Your task to perform on an android device: add a contact Image 0: 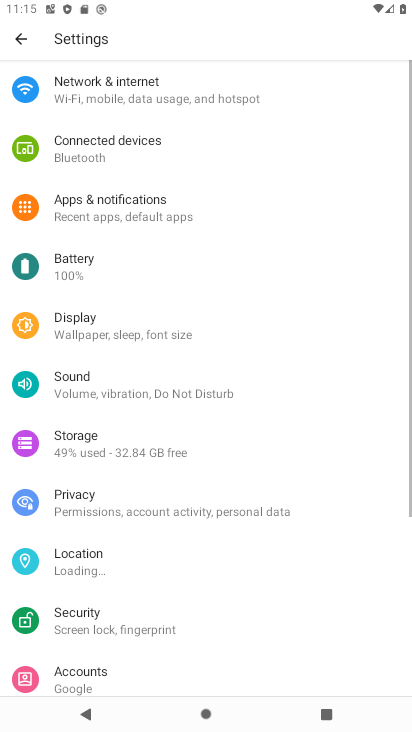
Step 0: press home button
Your task to perform on an android device: add a contact Image 1: 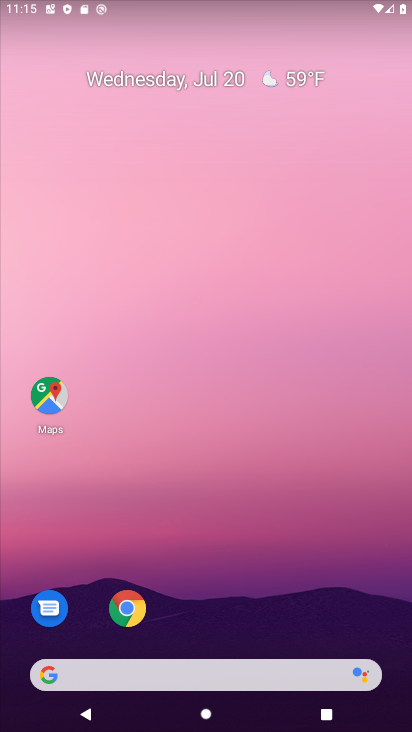
Step 1: drag from (311, 605) to (352, 149)
Your task to perform on an android device: add a contact Image 2: 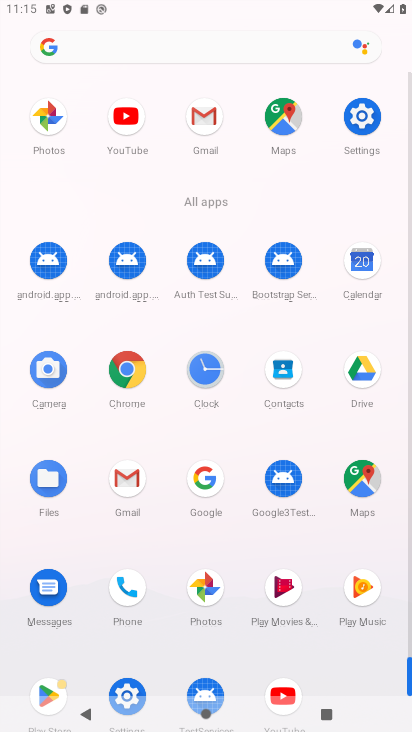
Step 2: click (285, 376)
Your task to perform on an android device: add a contact Image 3: 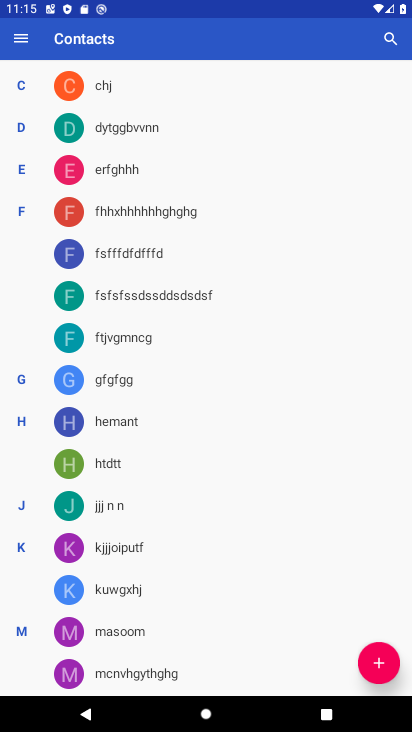
Step 3: click (374, 647)
Your task to perform on an android device: add a contact Image 4: 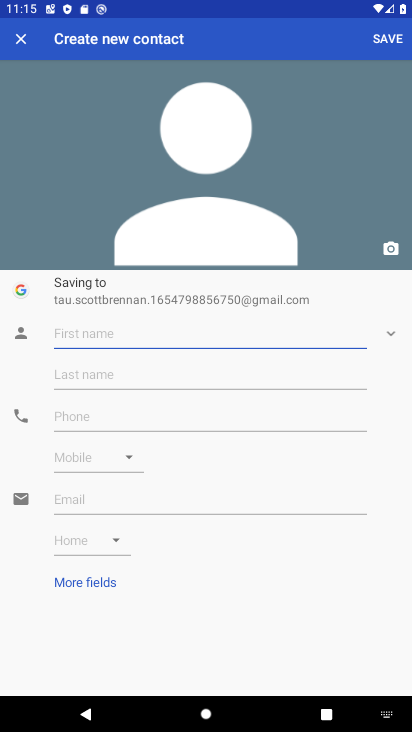
Step 4: type "lolol"
Your task to perform on an android device: add a contact Image 5: 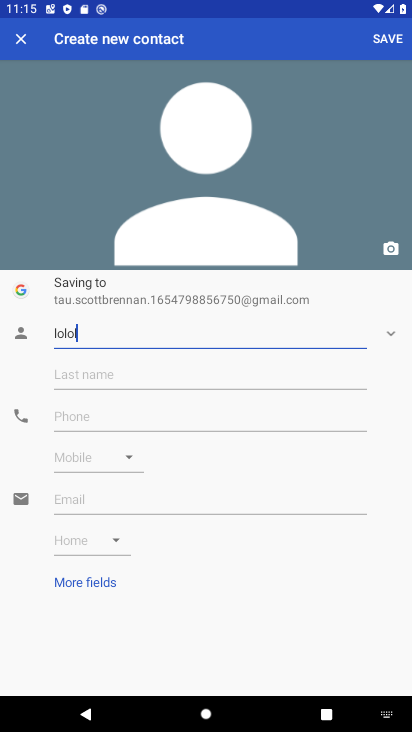
Step 5: click (165, 416)
Your task to perform on an android device: add a contact Image 6: 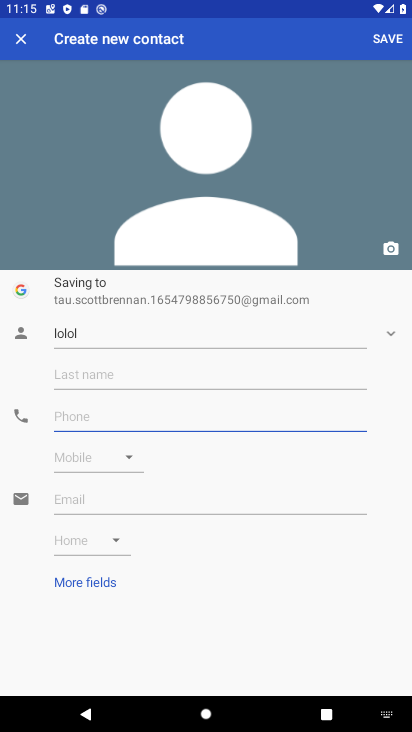
Step 6: type "123456789"
Your task to perform on an android device: add a contact Image 7: 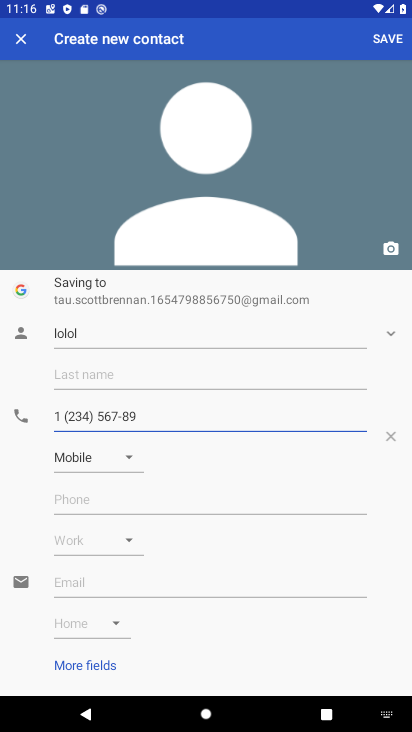
Step 7: click (390, 46)
Your task to perform on an android device: add a contact Image 8: 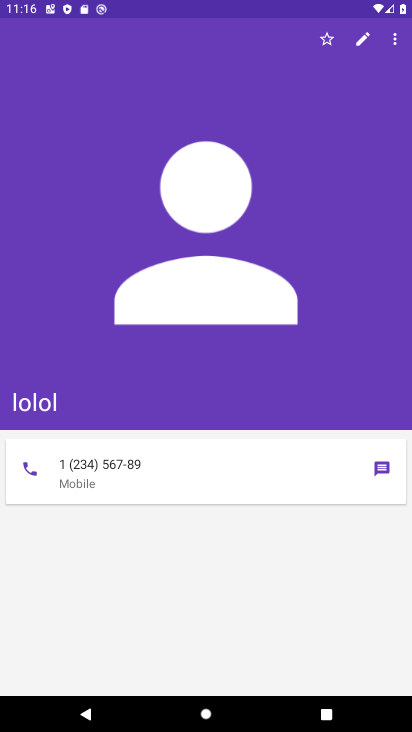
Step 8: task complete